Your task to perform on an android device: Empty the shopping cart on newegg. Image 0: 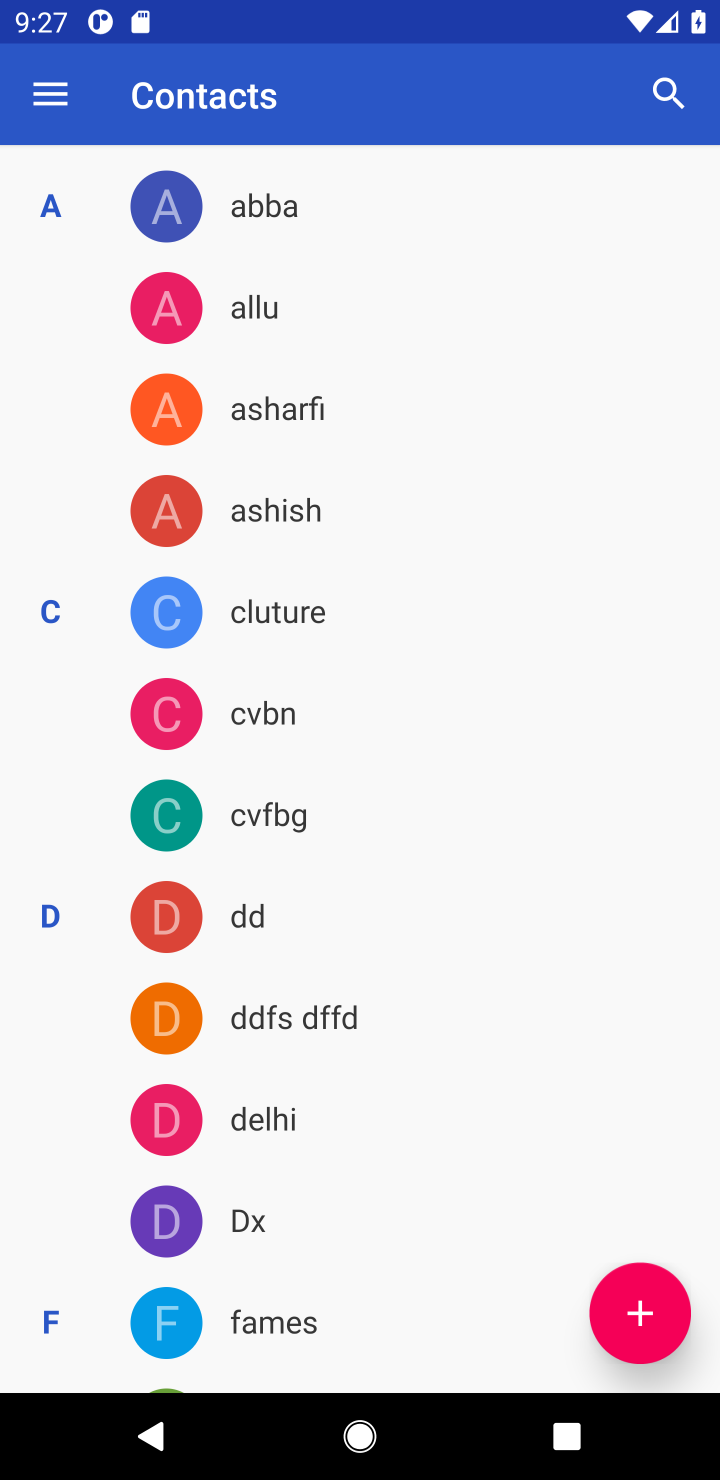
Step 0: press home button
Your task to perform on an android device: Empty the shopping cart on newegg. Image 1: 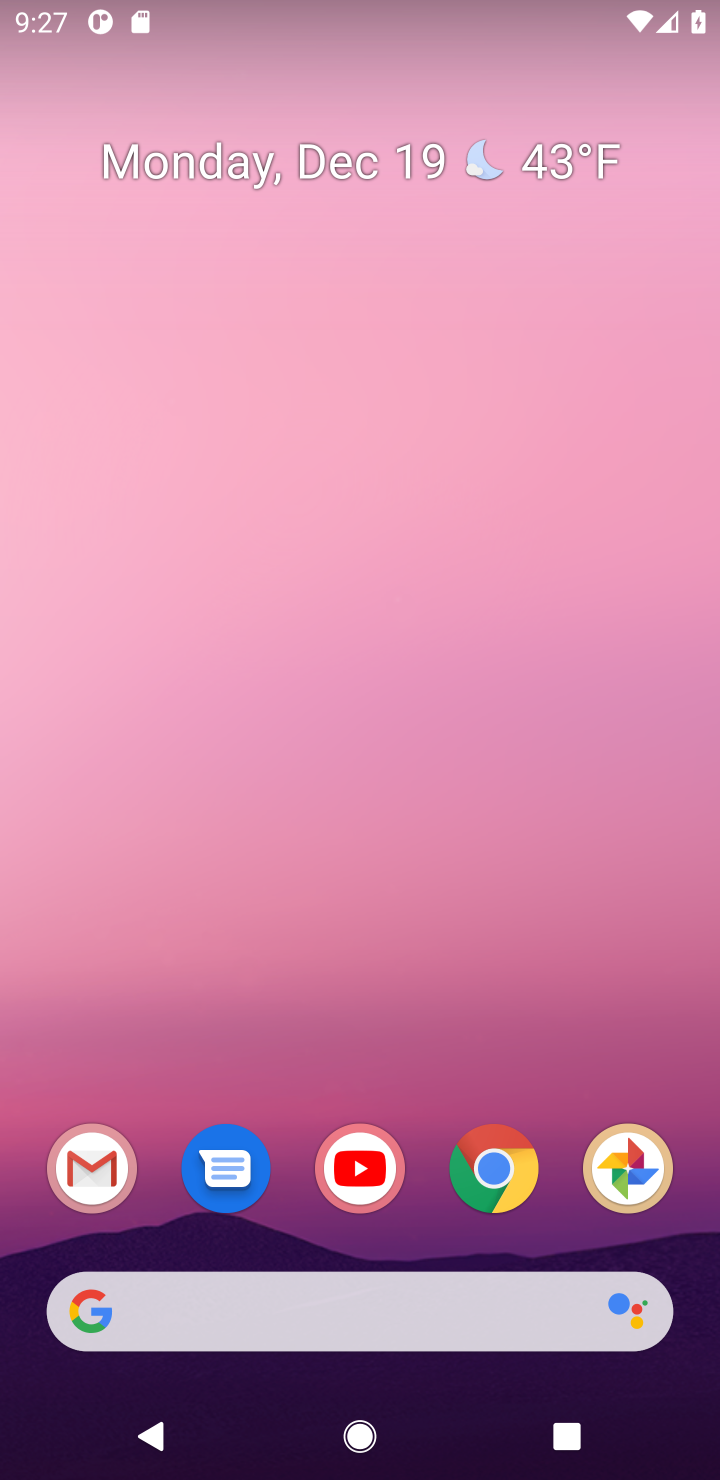
Step 1: click (492, 1183)
Your task to perform on an android device: Empty the shopping cart on newegg. Image 2: 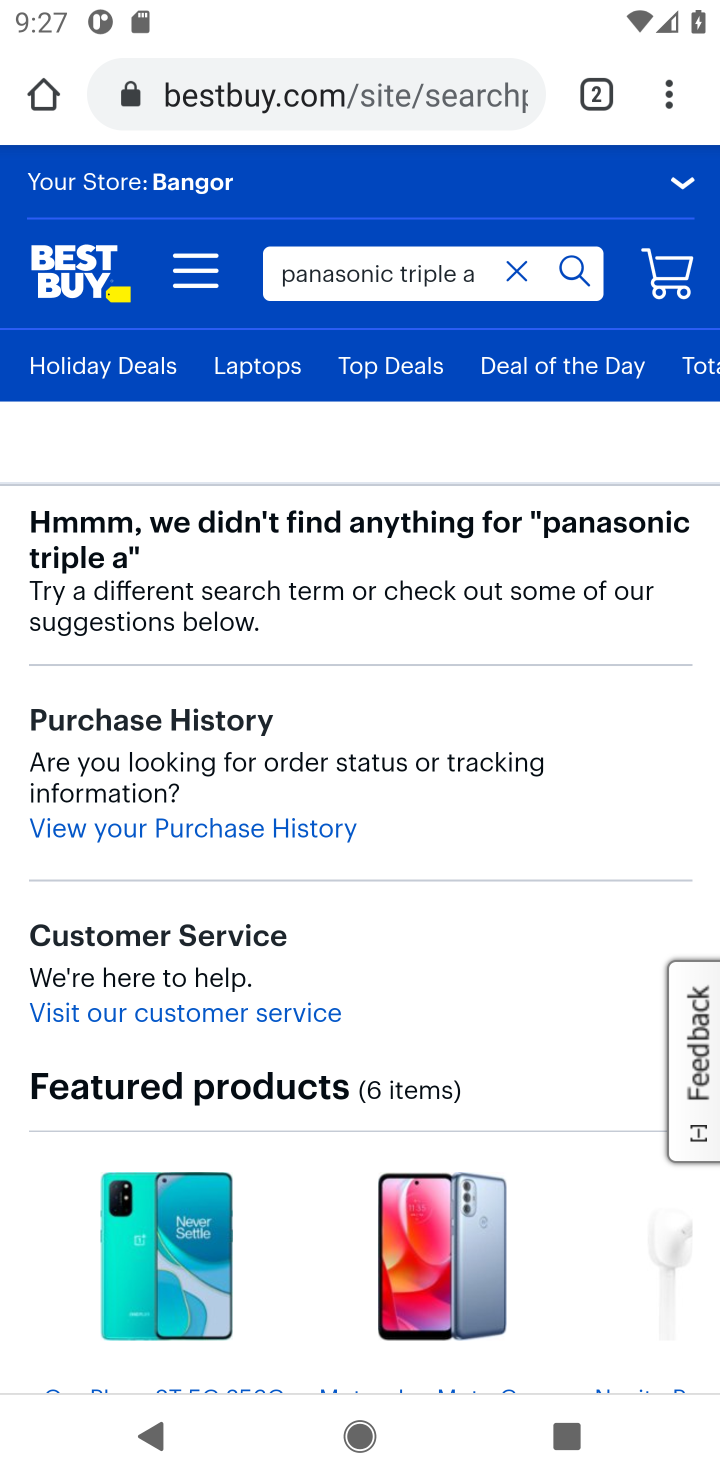
Step 2: click (310, 105)
Your task to perform on an android device: Empty the shopping cart on newegg. Image 3: 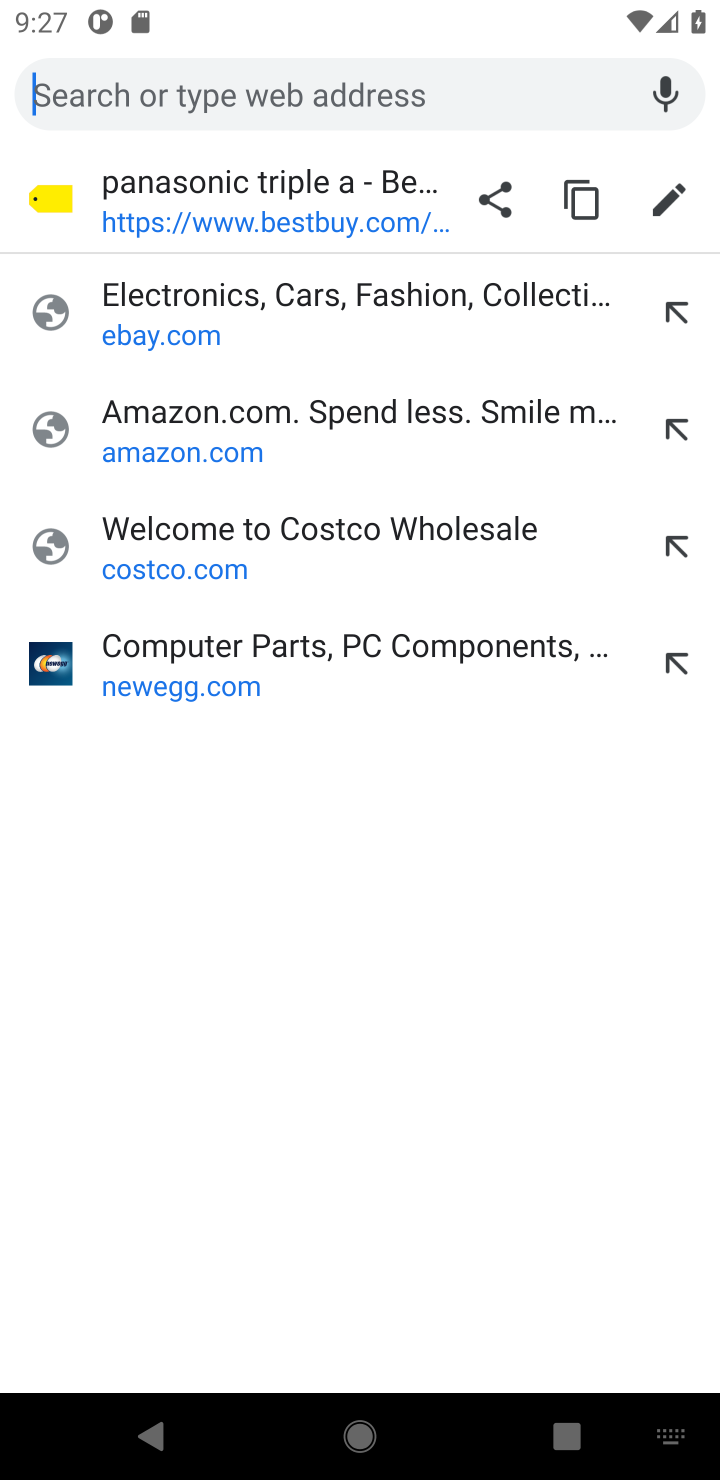
Step 3: click (196, 668)
Your task to perform on an android device: Empty the shopping cart on newegg. Image 4: 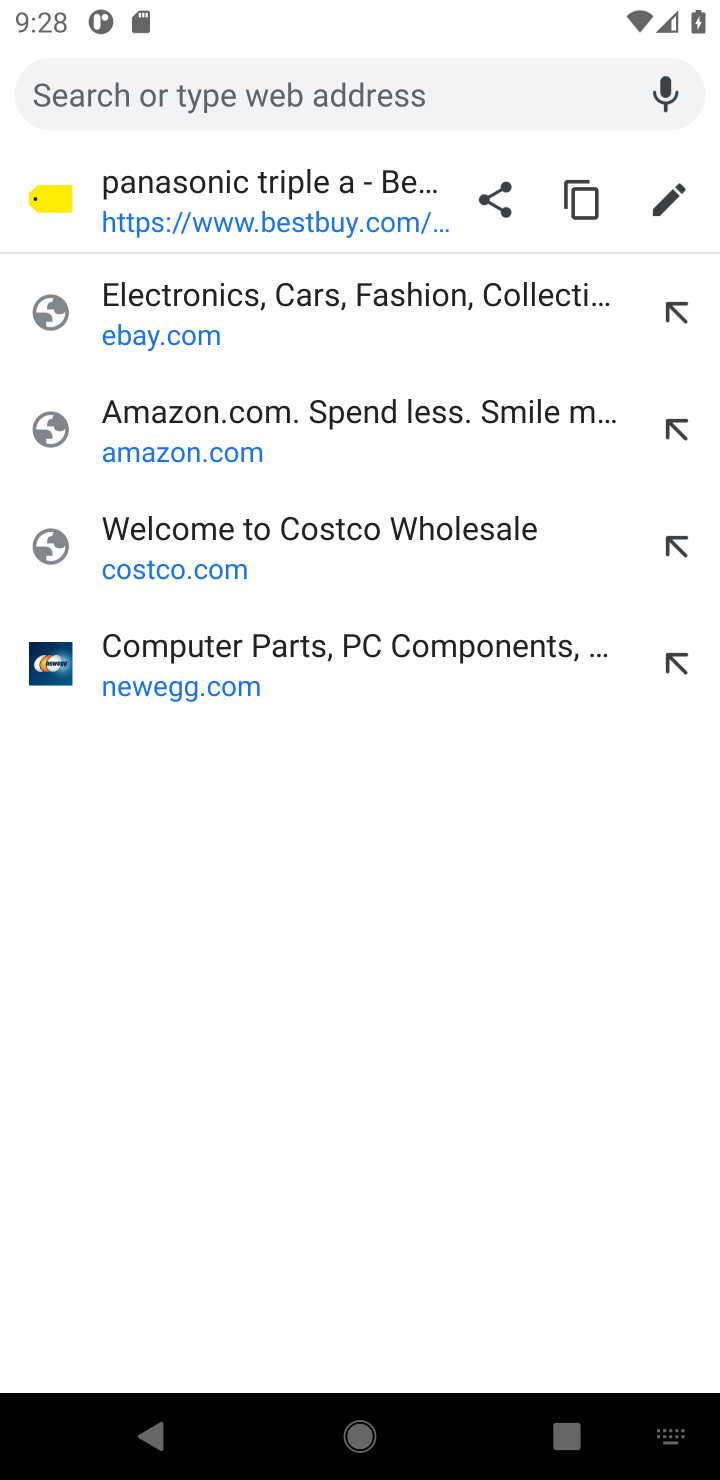
Step 4: click (191, 651)
Your task to perform on an android device: Empty the shopping cart on newegg. Image 5: 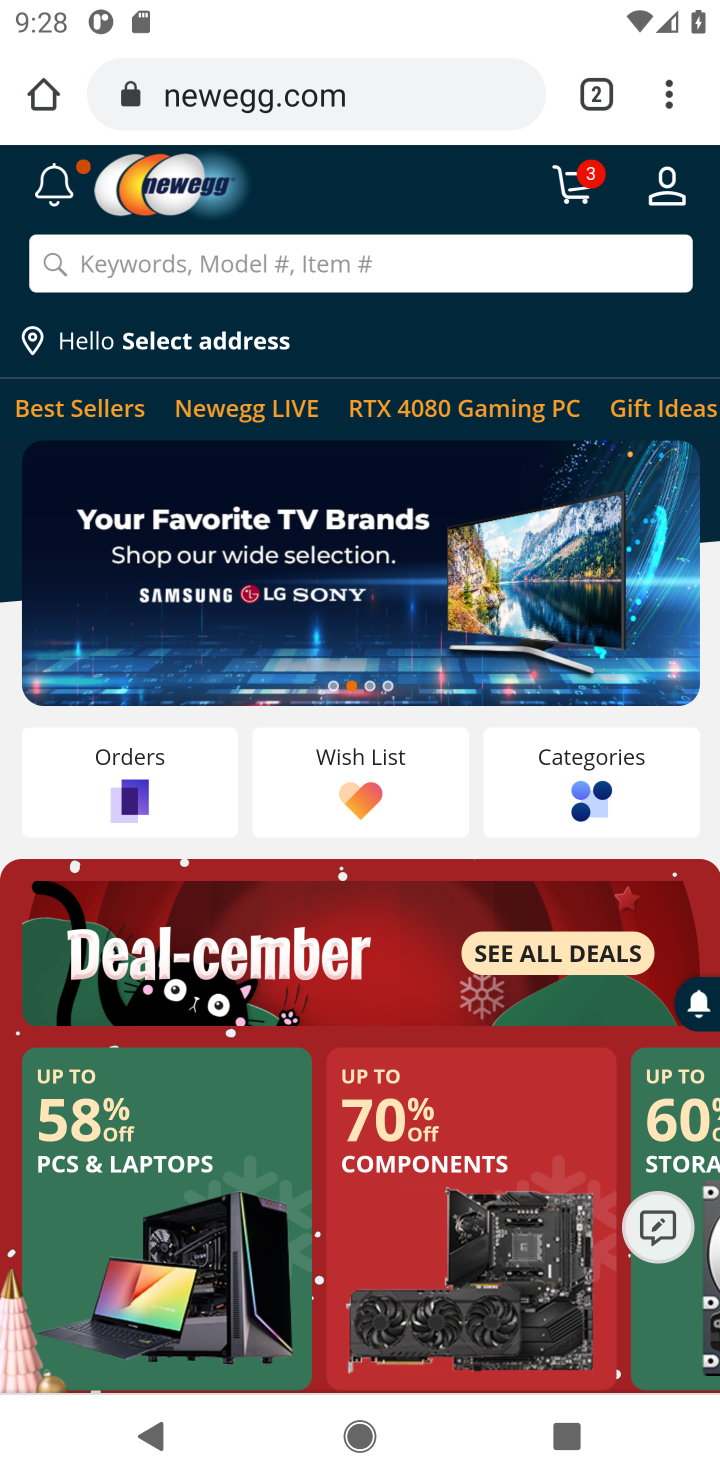
Step 5: click (574, 194)
Your task to perform on an android device: Empty the shopping cart on newegg. Image 6: 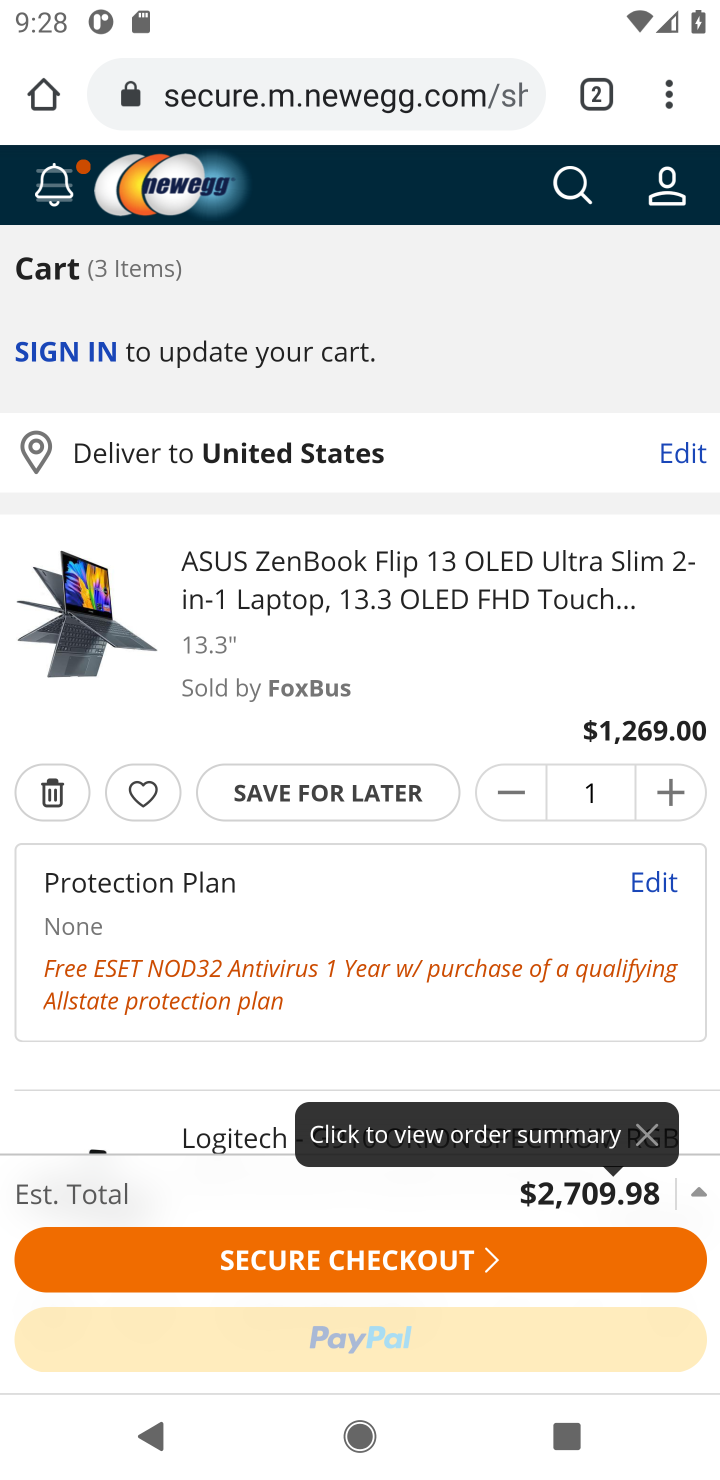
Step 6: click (44, 796)
Your task to perform on an android device: Empty the shopping cart on newegg. Image 7: 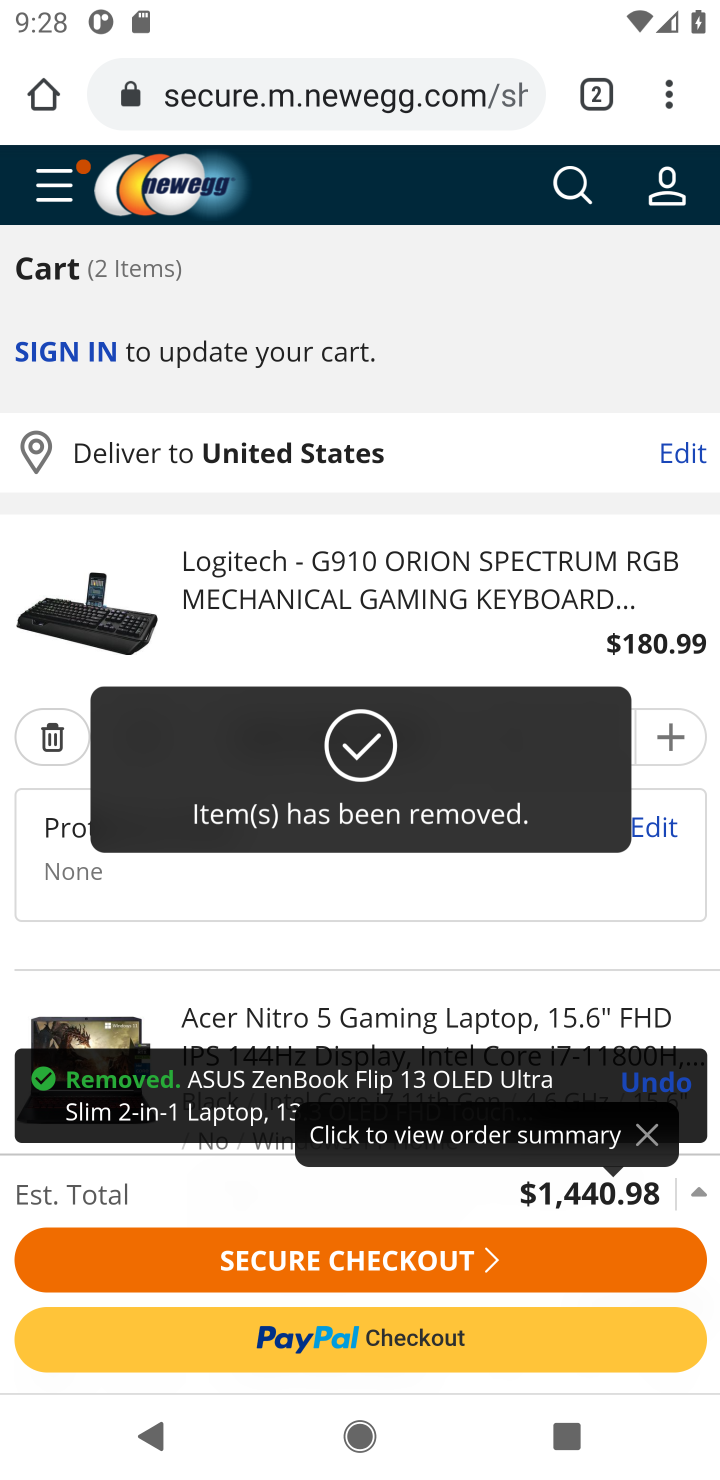
Step 7: click (41, 736)
Your task to perform on an android device: Empty the shopping cart on newegg. Image 8: 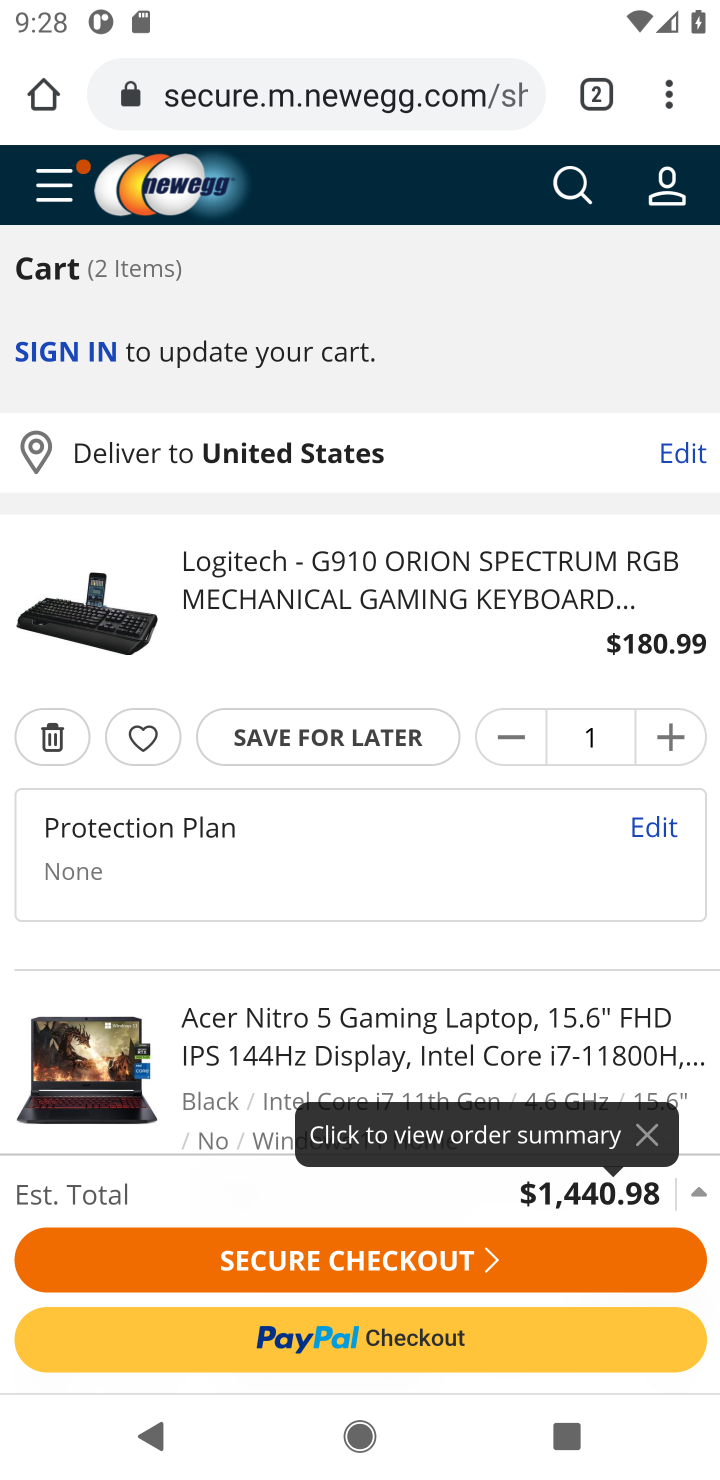
Step 8: click (46, 753)
Your task to perform on an android device: Empty the shopping cart on newegg. Image 9: 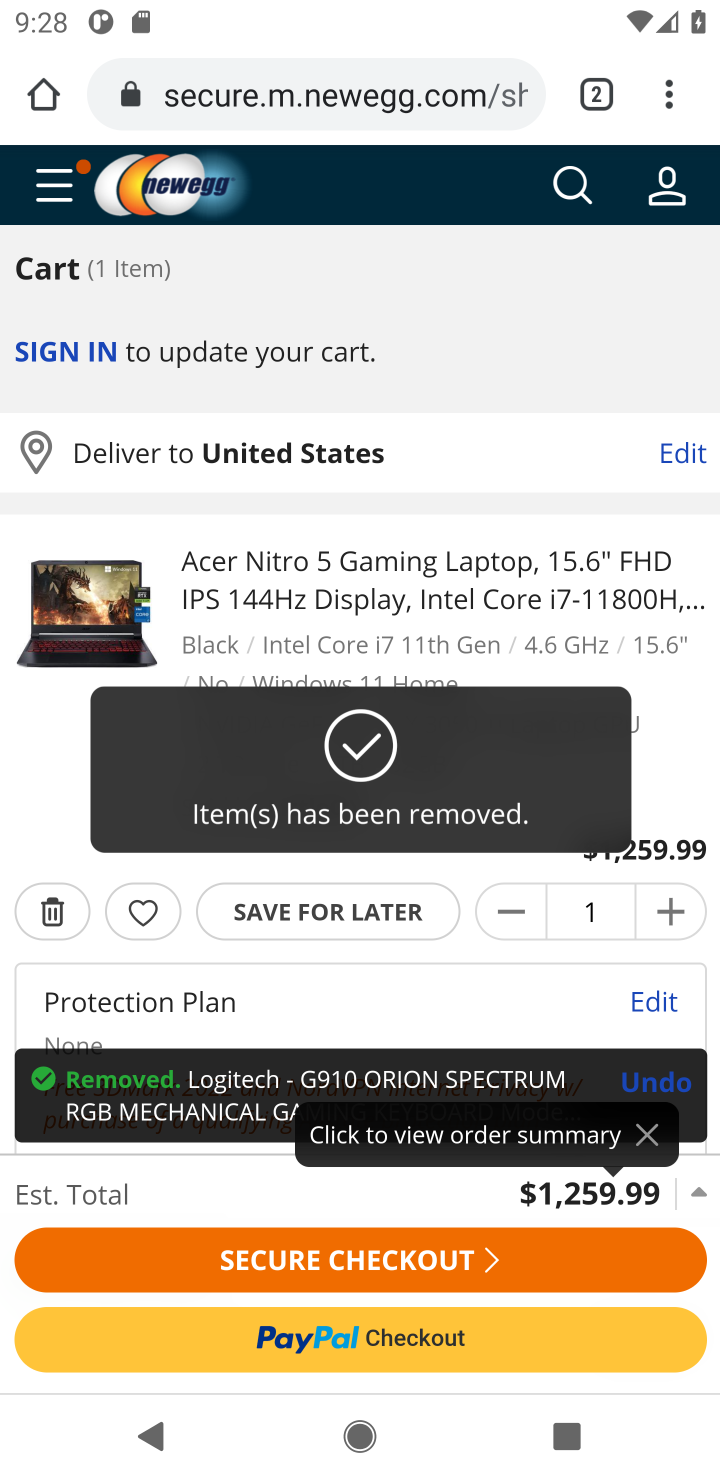
Step 9: click (33, 901)
Your task to perform on an android device: Empty the shopping cart on newegg. Image 10: 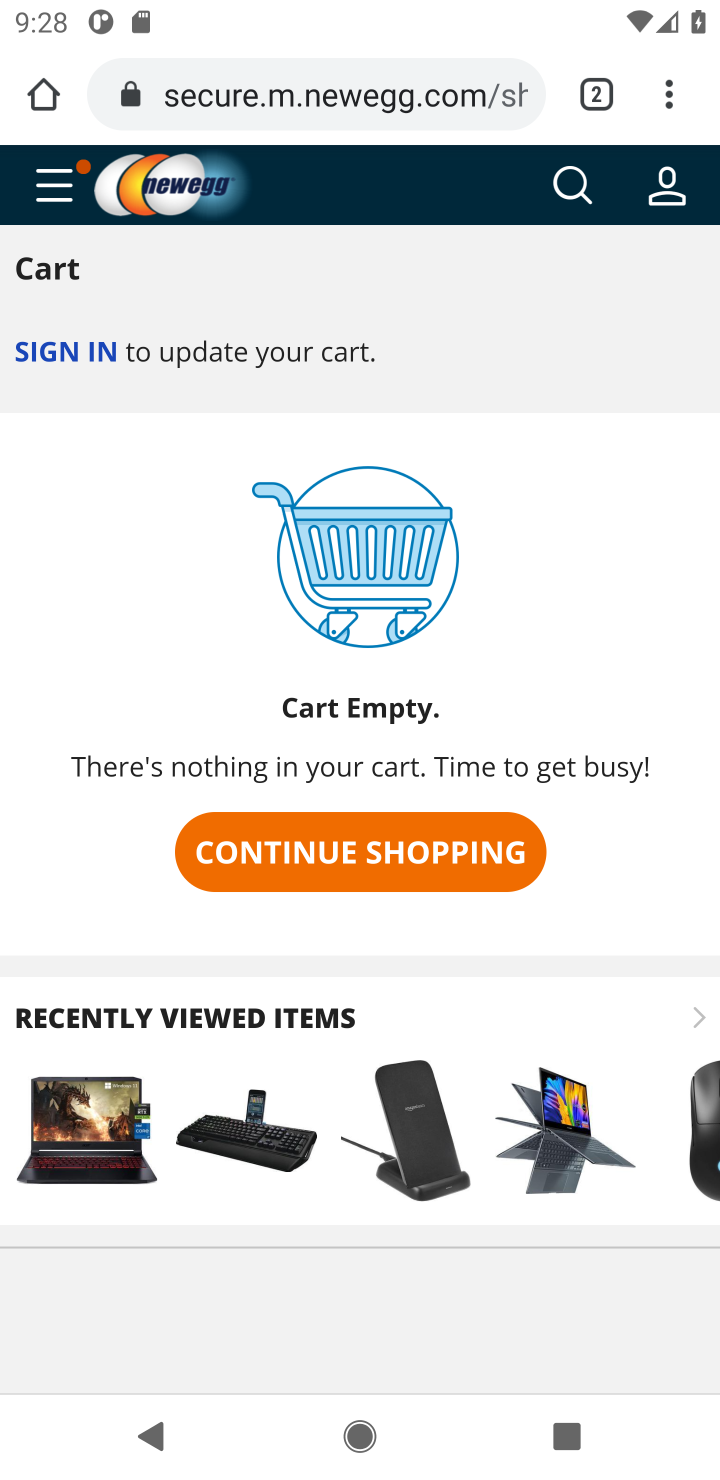
Step 10: task complete